Your task to perform on an android device: open wifi settings Image 0: 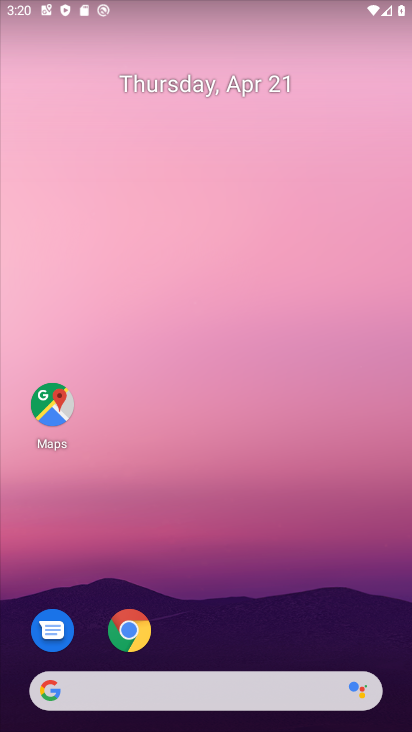
Step 0: drag from (120, 74) to (150, 715)
Your task to perform on an android device: open wifi settings Image 1: 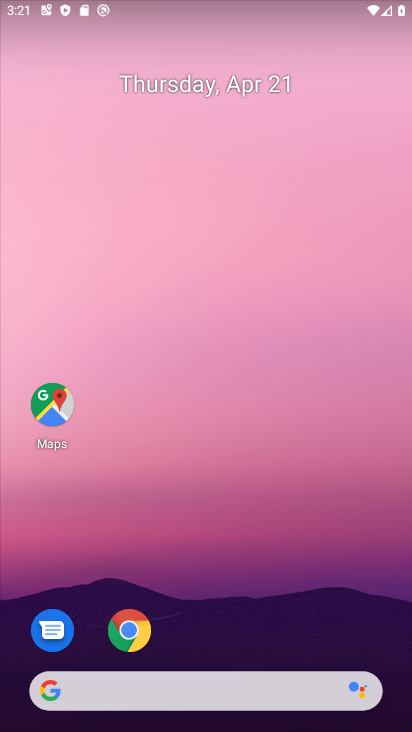
Step 1: drag from (91, 40) to (166, 362)
Your task to perform on an android device: open wifi settings Image 2: 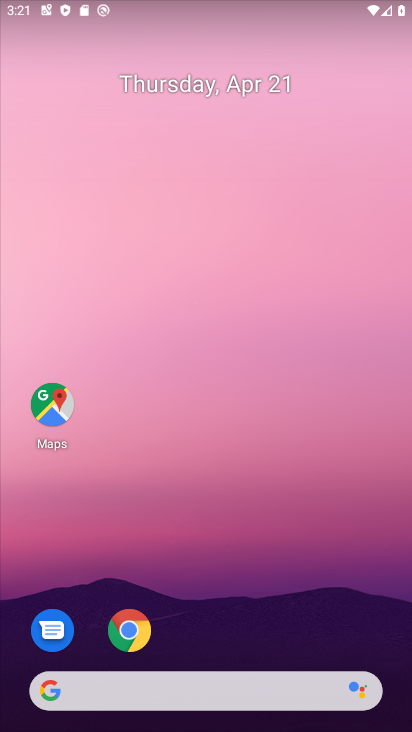
Step 2: drag from (59, 10) to (143, 541)
Your task to perform on an android device: open wifi settings Image 3: 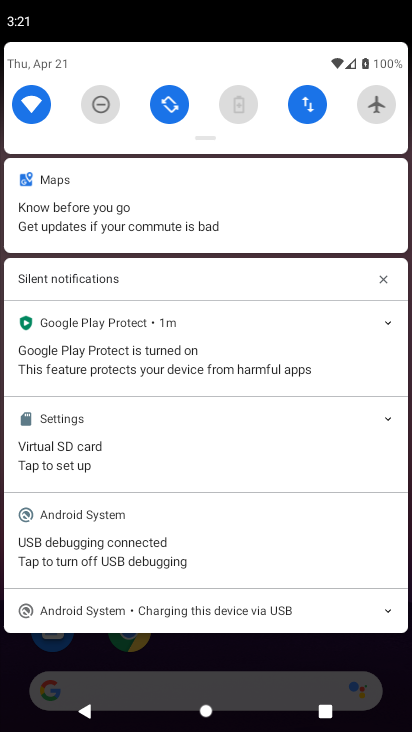
Step 3: click (26, 95)
Your task to perform on an android device: open wifi settings Image 4: 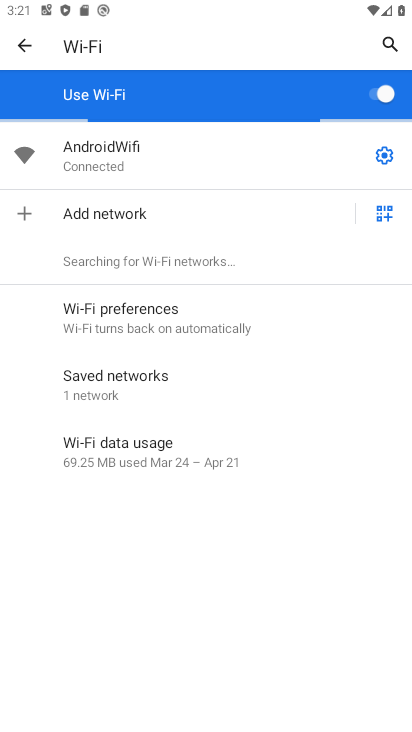
Step 4: task complete